Your task to perform on an android device: Go to sound settings Image 0: 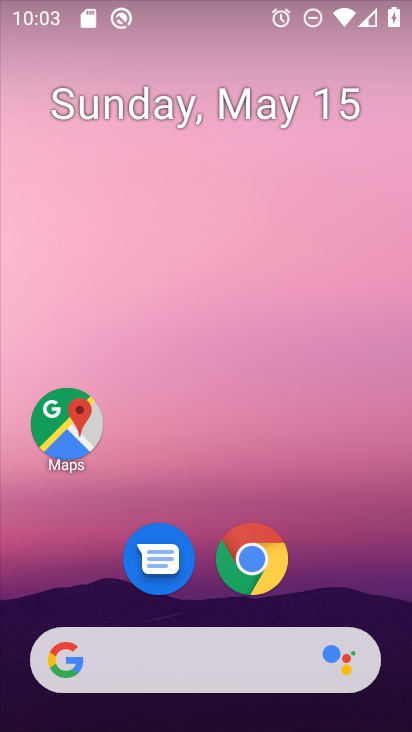
Step 0: drag from (343, 591) to (343, 6)
Your task to perform on an android device: Go to sound settings Image 1: 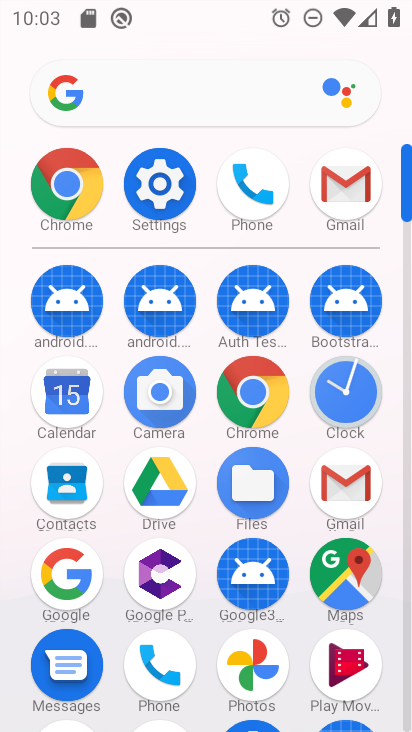
Step 1: click (168, 213)
Your task to perform on an android device: Go to sound settings Image 2: 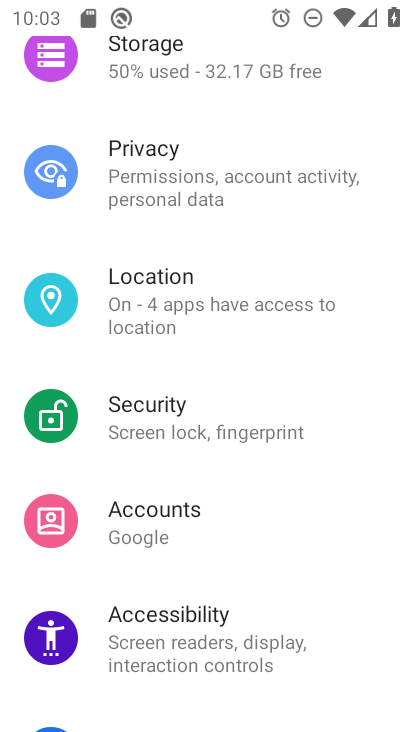
Step 2: drag from (217, 198) to (209, 618)
Your task to perform on an android device: Go to sound settings Image 3: 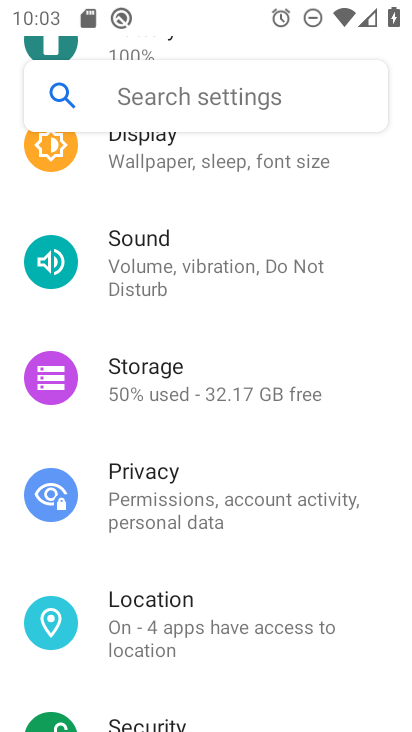
Step 3: click (217, 299)
Your task to perform on an android device: Go to sound settings Image 4: 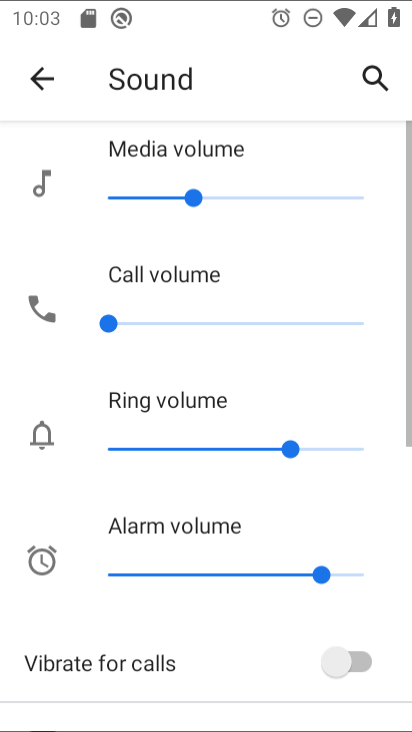
Step 4: task complete